Your task to perform on an android device: open wifi settings Image 0: 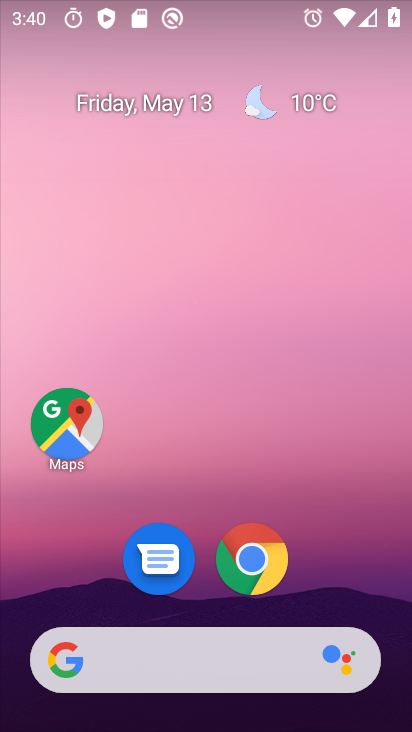
Step 0: drag from (204, 566) to (204, 258)
Your task to perform on an android device: open wifi settings Image 1: 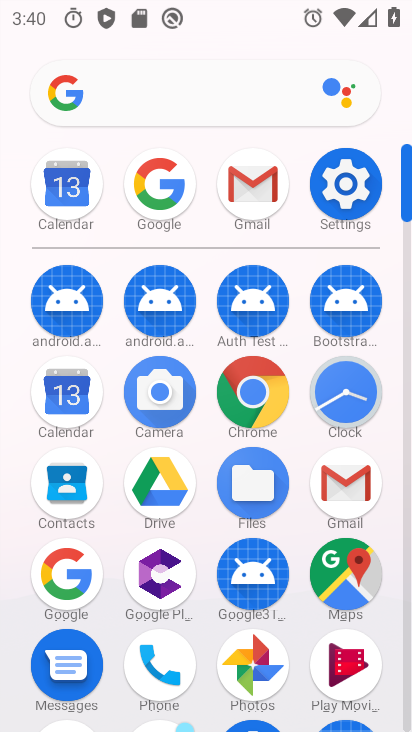
Step 1: click (321, 187)
Your task to perform on an android device: open wifi settings Image 2: 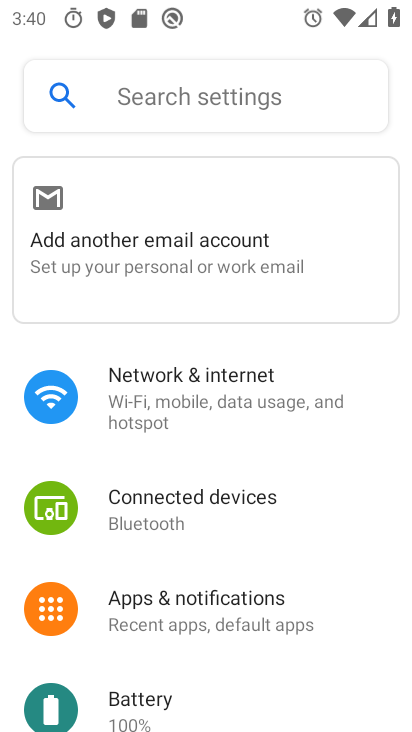
Step 2: click (224, 401)
Your task to perform on an android device: open wifi settings Image 3: 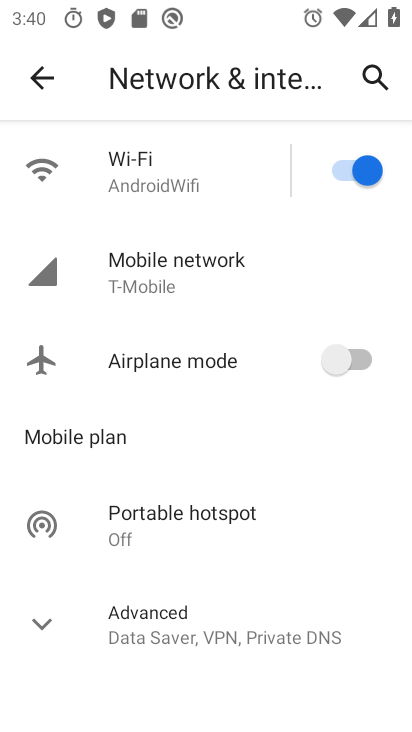
Step 3: click (158, 173)
Your task to perform on an android device: open wifi settings Image 4: 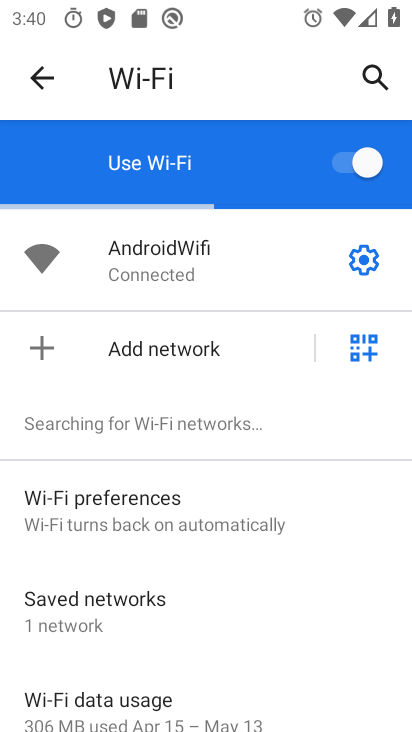
Step 4: task complete